Your task to perform on an android device: toggle sleep mode Image 0: 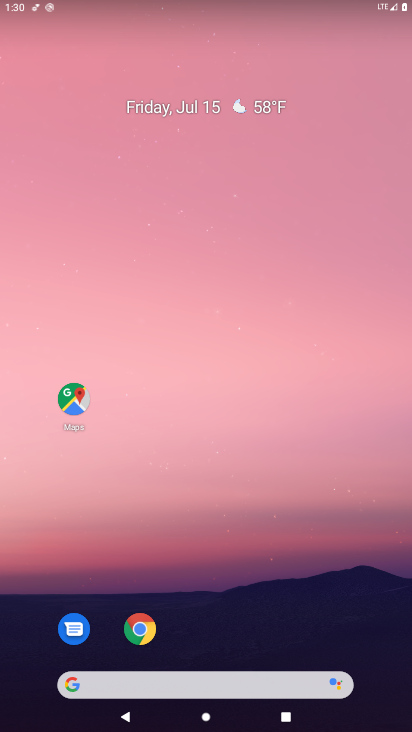
Step 0: press home button
Your task to perform on an android device: toggle sleep mode Image 1: 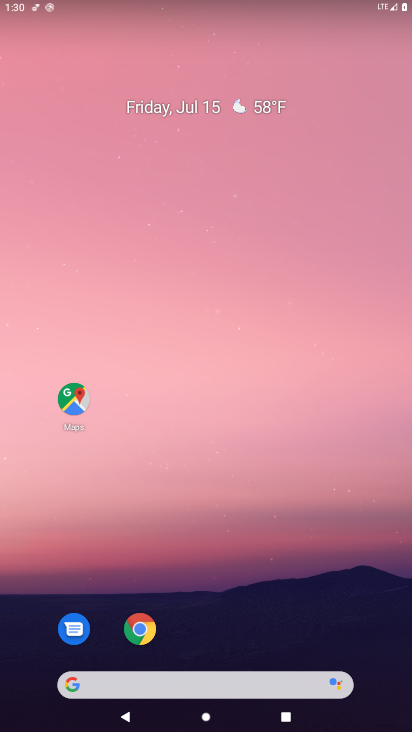
Step 1: drag from (197, 667) to (252, 176)
Your task to perform on an android device: toggle sleep mode Image 2: 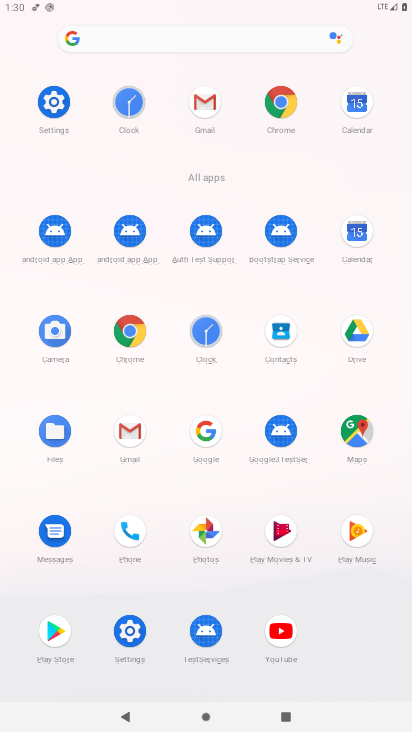
Step 2: click (55, 115)
Your task to perform on an android device: toggle sleep mode Image 3: 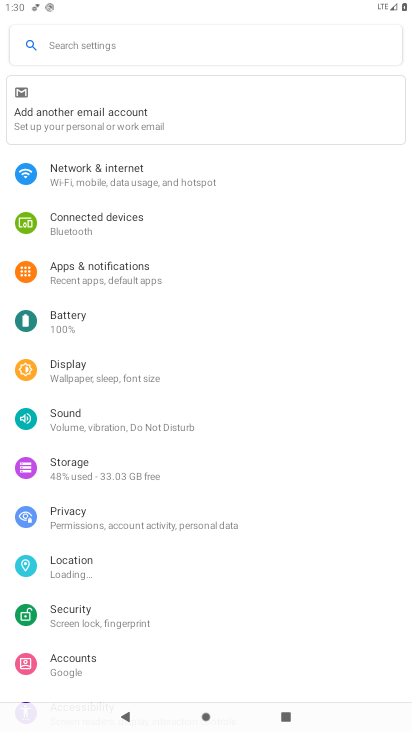
Step 3: click (54, 361)
Your task to perform on an android device: toggle sleep mode Image 4: 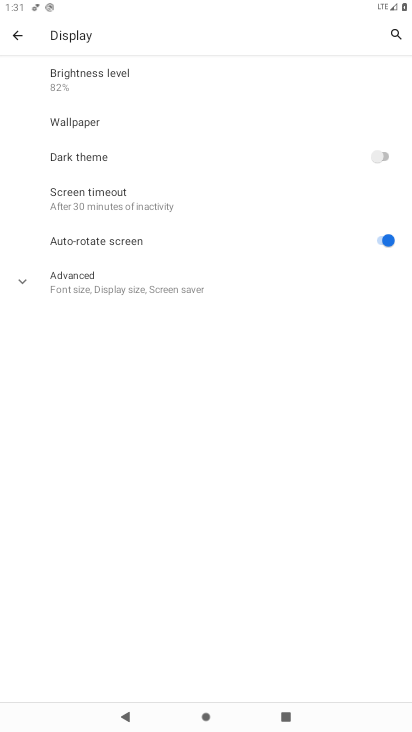
Step 4: task complete